Your task to perform on an android device: change your default location settings in chrome Image 0: 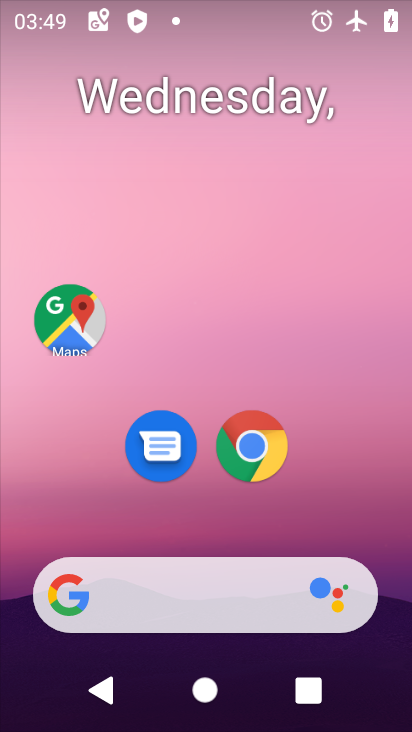
Step 0: click (249, 459)
Your task to perform on an android device: change your default location settings in chrome Image 1: 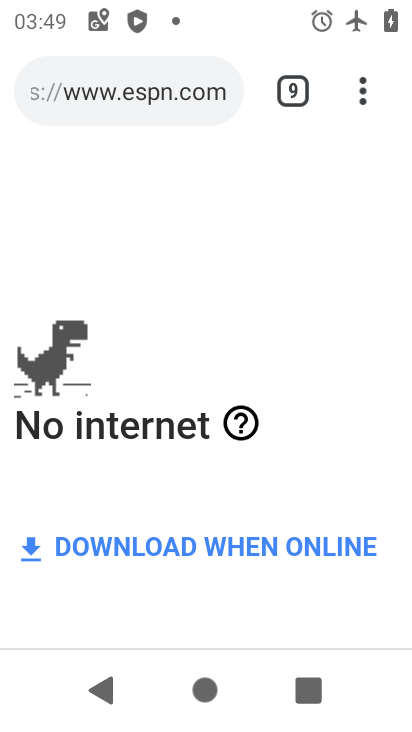
Step 1: drag from (360, 94) to (86, 478)
Your task to perform on an android device: change your default location settings in chrome Image 2: 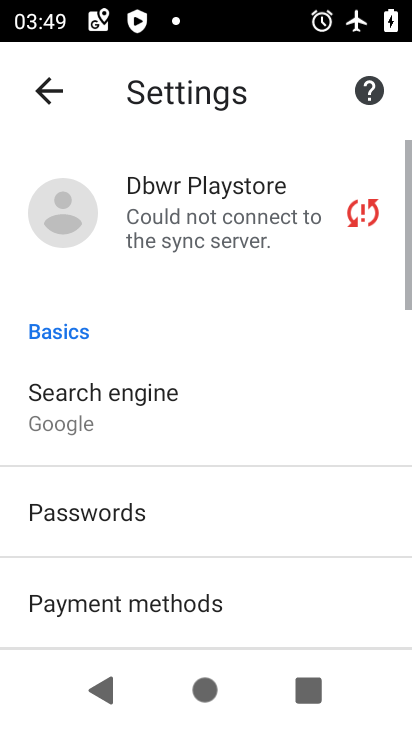
Step 2: click (107, 384)
Your task to perform on an android device: change your default location settings in chrome Image 3: 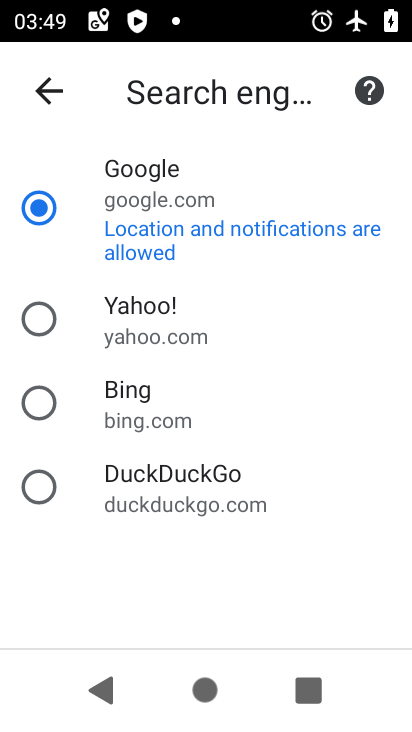
Step 3: click (90, 323)
Your task to perform on an android device: change your default location settings in chrome Image 4: 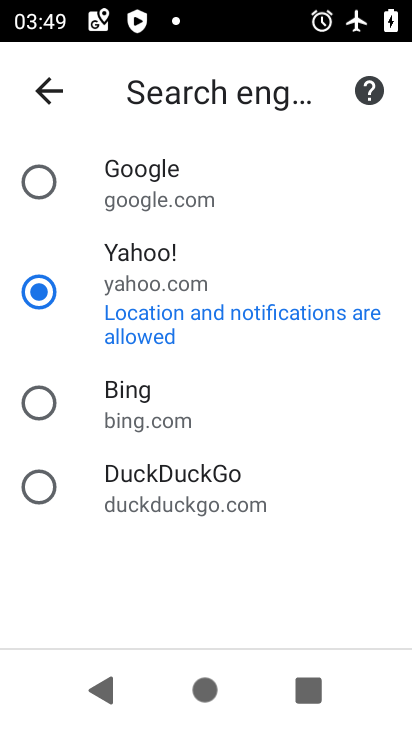
Step 4: task complete